Your task to perform on an android device: set the stopwatch Image 0: 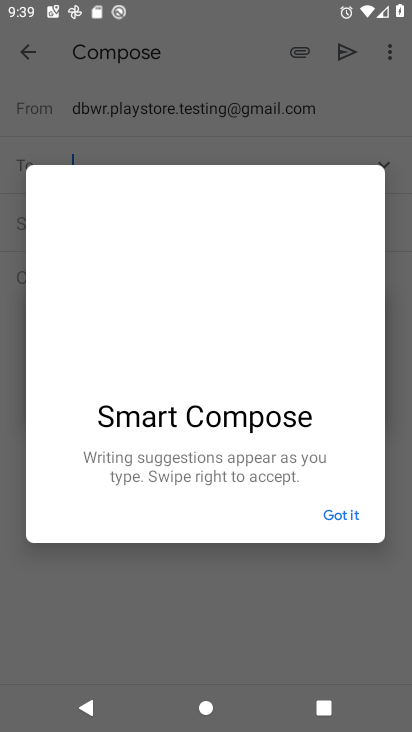
Step 0: press home button
Your task to perform on an android device: set the stopwatch Image 1: 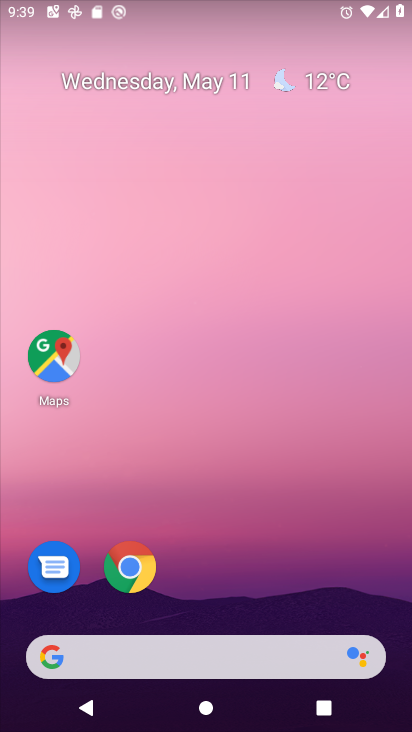
Step 1: drag from (270, 558) to (240, 64)
Your task to perform on an android device: set the stopwatch Image 2: 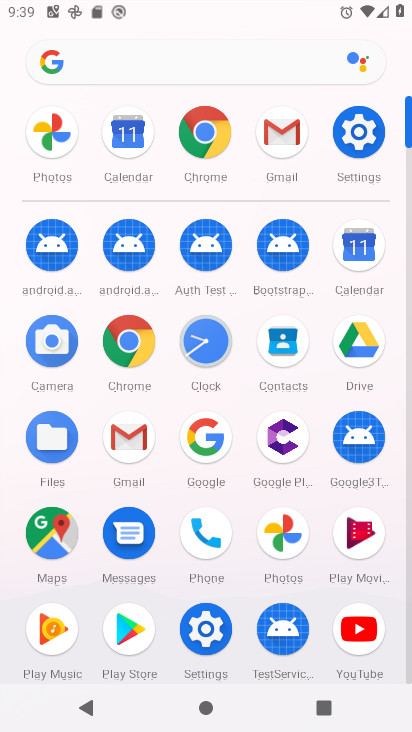
Step 2: click (204, 351)
Your task to perform on an android device: set the stopwatch Image 3: 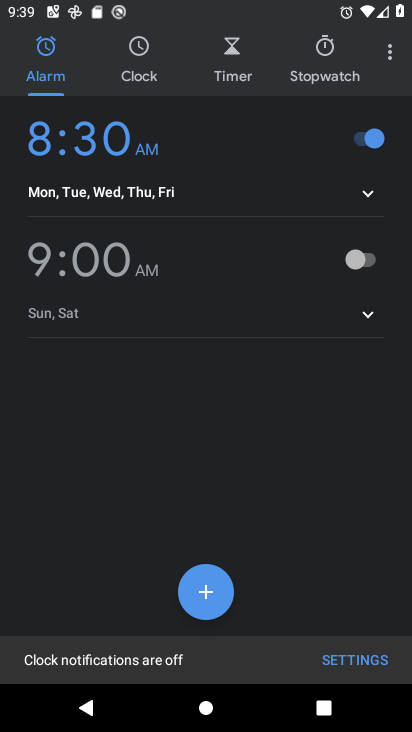
Step 3: click (317, 50)
Your task to perform on an android device: set the stopwatch Image 4: 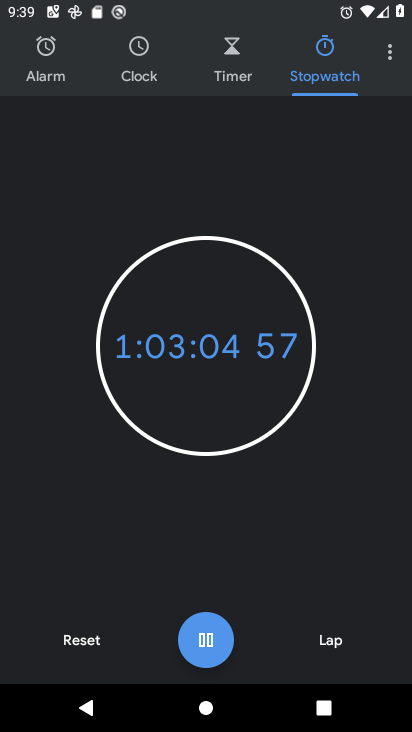
Step 4: click (71, 588)
Your task to perform on an android device: set the stopwatch Image 5: 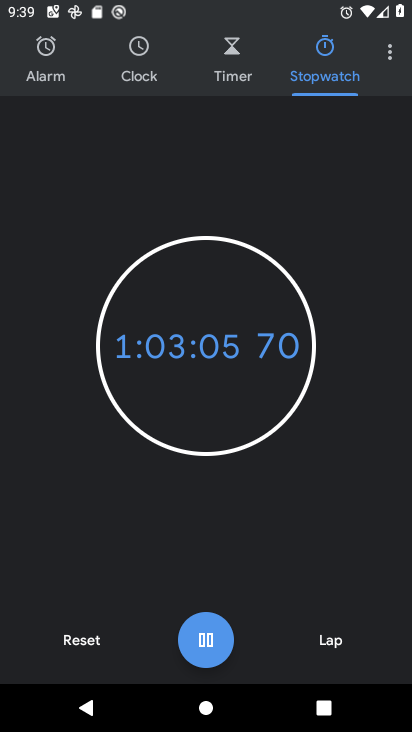
Step 5: click (86, 639)
Your task to perform on an android device: set the stopwatch Image 6: 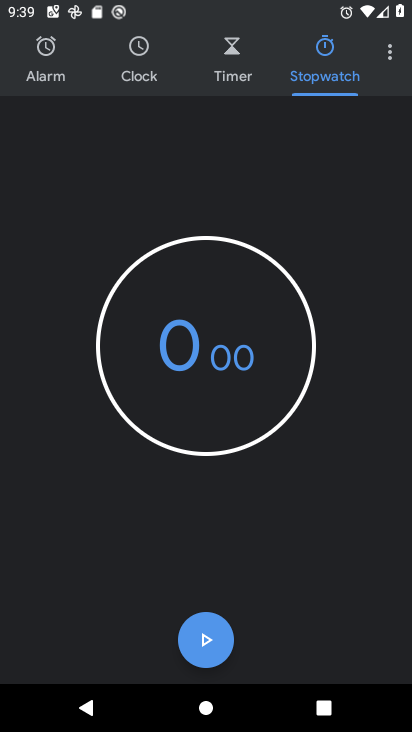
Step 6: click (218, 650)
Your task to perform on an android device: set the stopwatch Image 7: 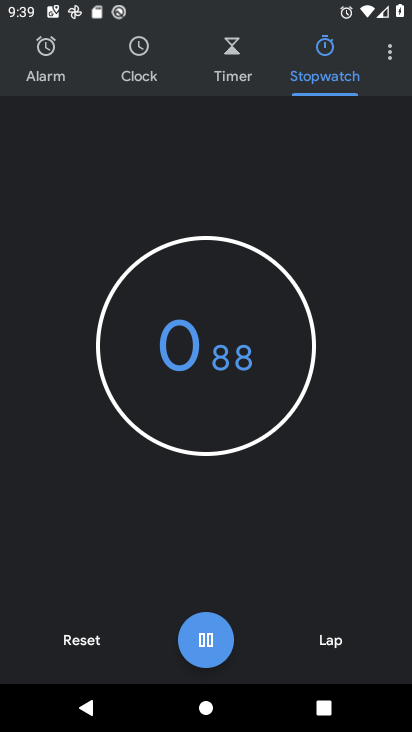
Step 7: task complete